Your task to perform on an android device: Open Reddit.com Image 0: 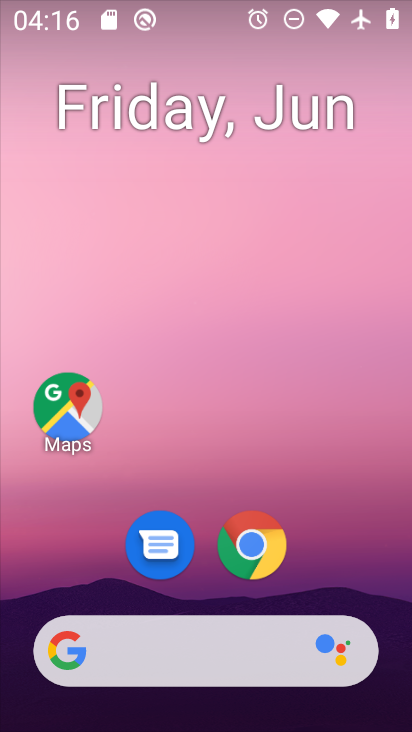
Step 0: click (278, 548)
Your task to perform on an android device: Open Reddit.com Image 1: 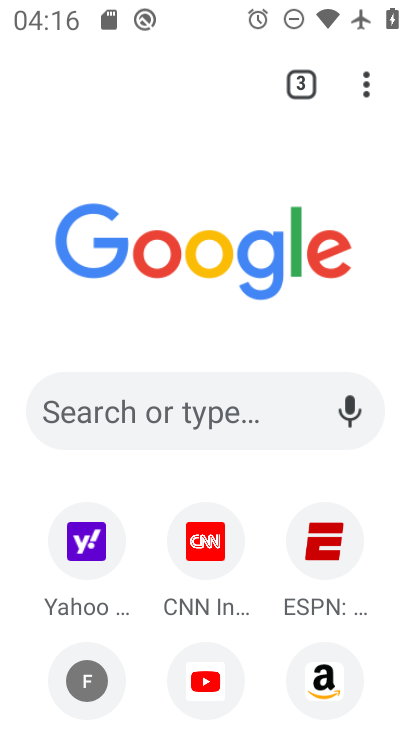
Step 1: click (218, 414)
Your task to perform on an android device: Open Reddit.com Image 2: 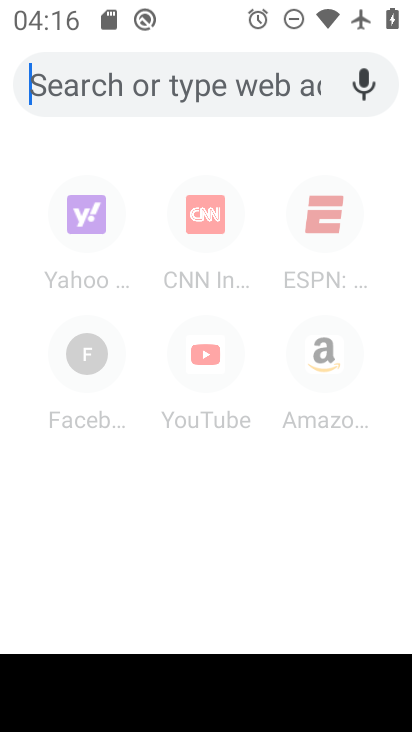
Step 2: type "Reddit.com"
Your task to perform on an android device: Open Reddit.com Image 3: 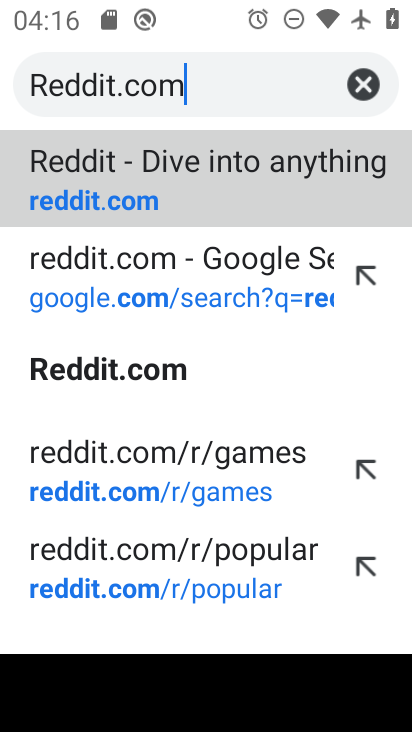
Step 3: click (131, 194)
Your task to perform on an android device: Open Reddit.com Image 4: 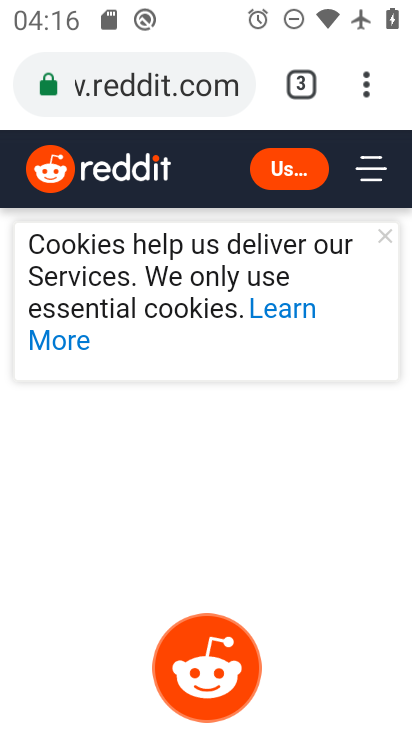
Step 4: task complete